Your task to perform on an android device: When is my next appointment? Image 0: 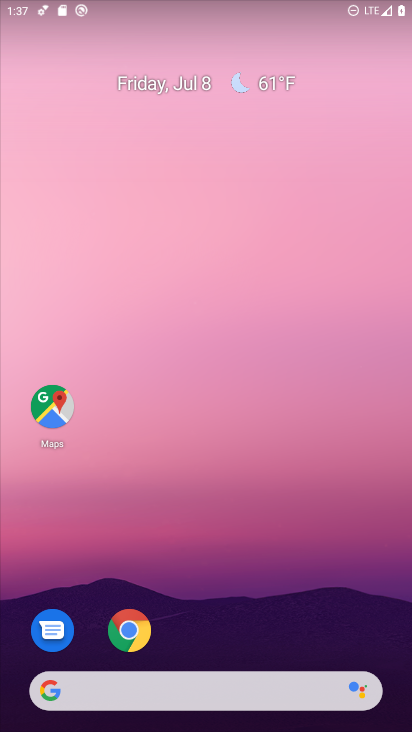
Step 0: drag from (380, 625) to (321, 182)
Your task to perform on an android device: When is my next appointment? Image 1: 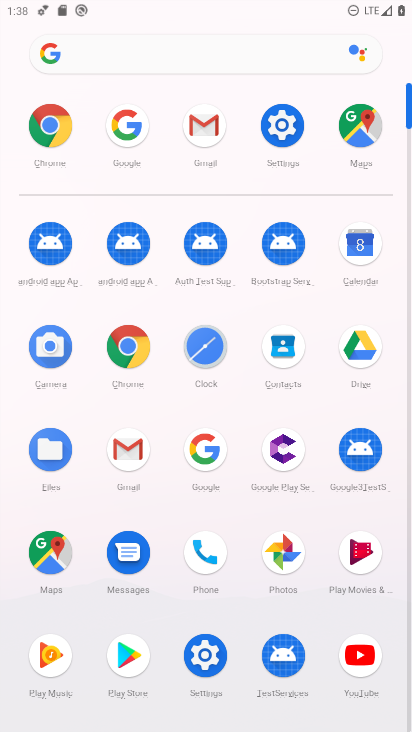
Step 1: click (361, 240)
Your task to perform on an android device: When is my next appointment? Image 2: 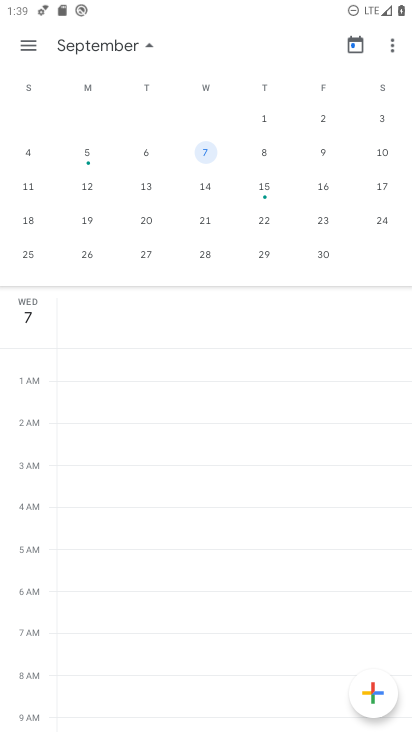
Step 2: task complete